Your task to perform on an android device: Open Maps and search for coffee Image 0: 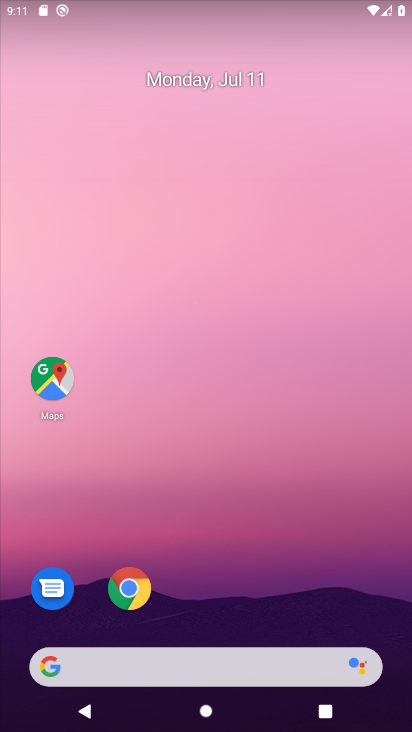
Step 0: drag from (240, 571) to (260, 108)
Your task to perform on an android device: Open Maps and search for coffee Image 1: 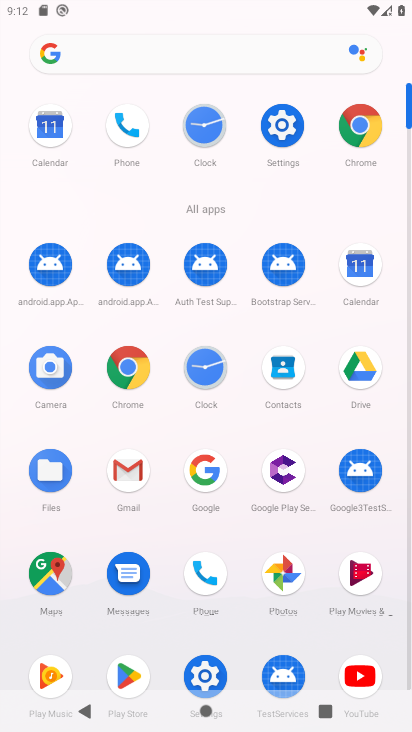
Step 1: drag from (181, 535) to (213, 61)
Your task to perform on an android device: Open Maps and search for coffee Image 2: 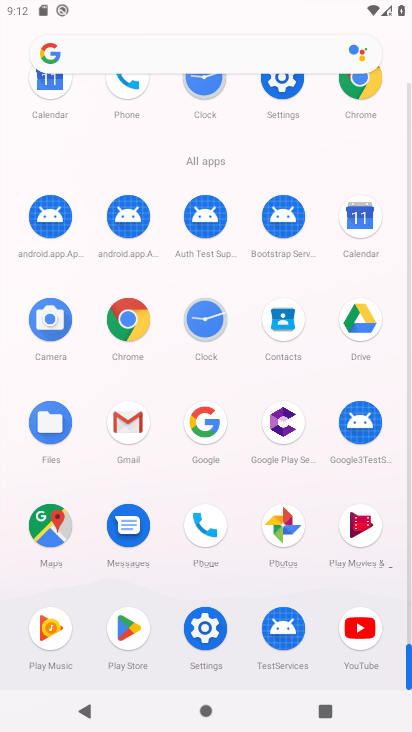
Step 2: click (48, 520)
Your task to perform on an android device: Open Maps and search for coffee Image 3: 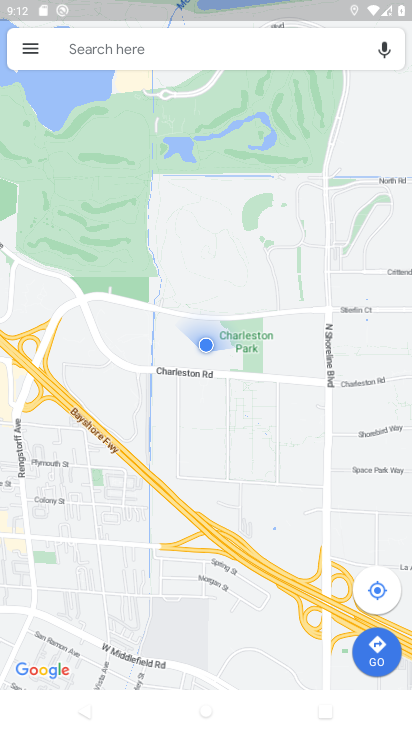
Step 3: click (235, 36)
Your task to perform on an android device: Open Maps and search for coffee Image 4: 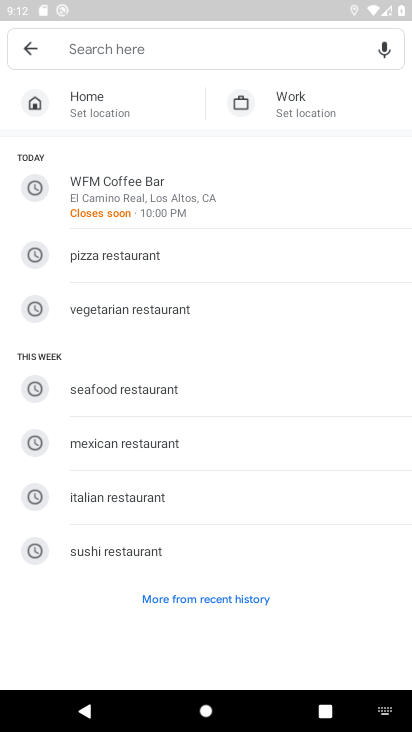
Step 4: type " coffee "
Your task to perform on an android device: Open Maps and search for coffee Image 5: 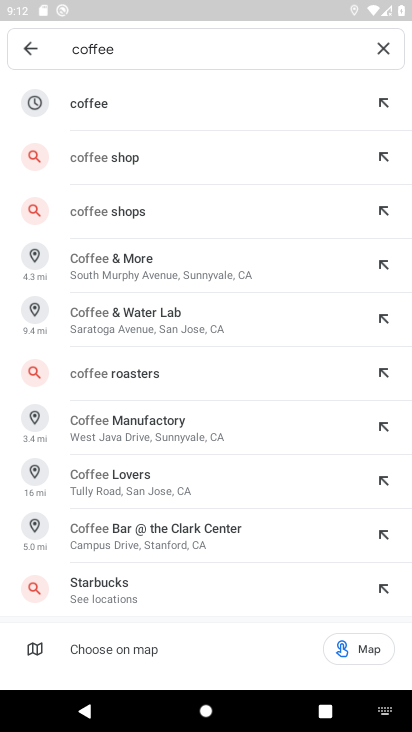
Step 5: click (178, 101)
Your task to perform on an android device: Open Maps and search for coffee Image 6: 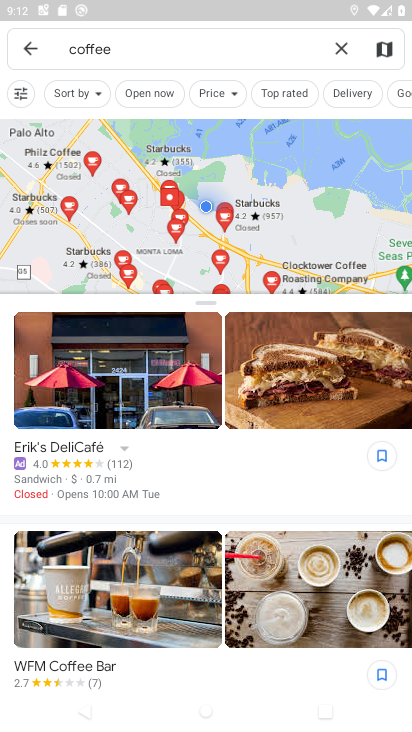
Step 6: task complete